Your task to perform on an android device: Open Reddit.com Image 0: 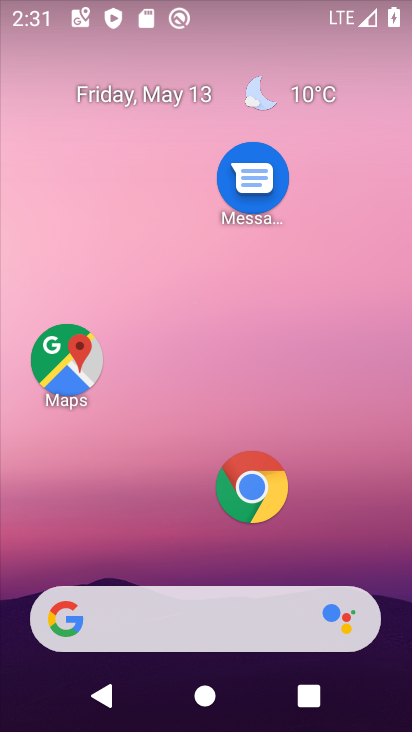
Step 0: drag from (169, 529) to (221, 146)
Your task to perform on an android device: Open Reddit.com Image 1: 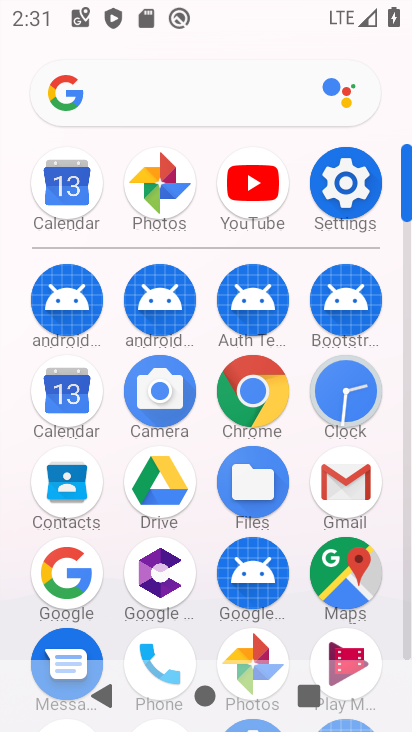
Step 1: click (249, 390)
Your task to perform on an android device: Open Reddit.com Image 2: 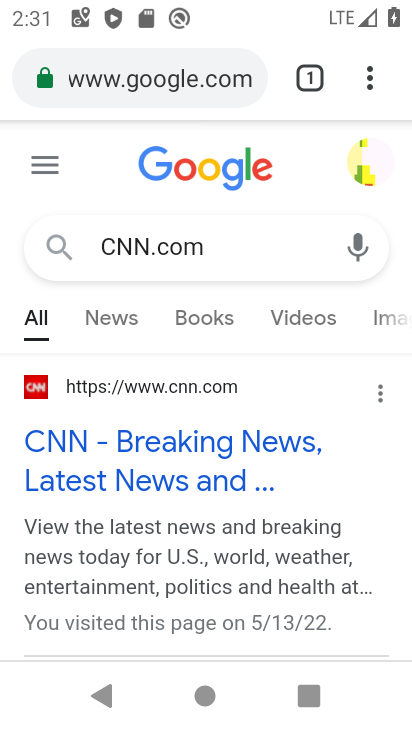
Step 2: click (137, 69)
Your task to perform on an android device: Open Reddit.com Image 3: 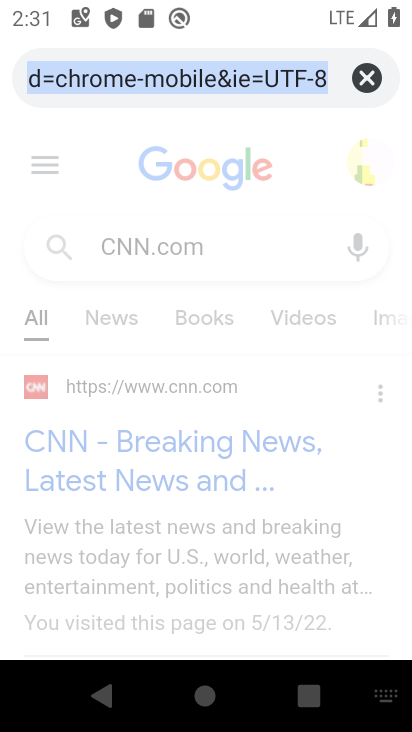
Step 3: type "Reddit.com"
Your task to perform on an android device: Open Reddit.com Image 4: 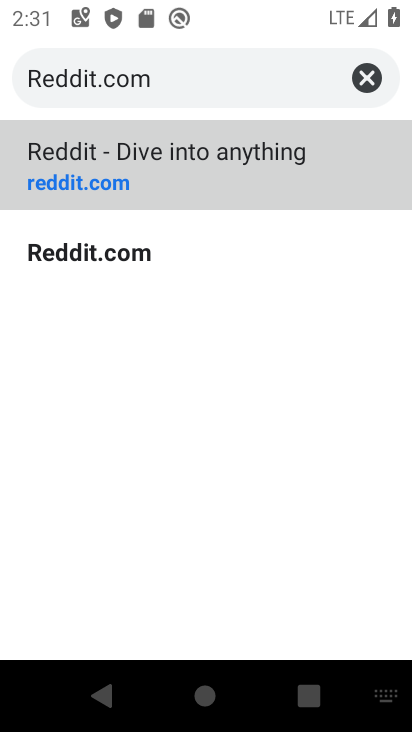
Step 4: click (76, 261)
Your task to perform on an android device: Open Reddit.com Image 5: 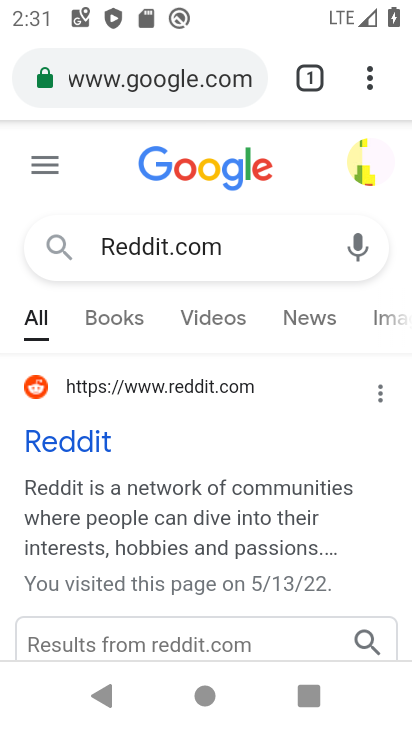
Step 5: task complete